Your task to perform on an android device: change timer sound Image 0: 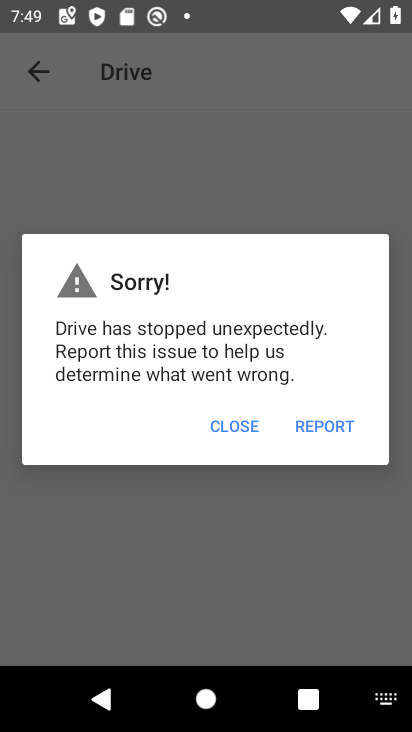
Step 0: press home button
Your task to perform on an android device: change timer sound Image 1: 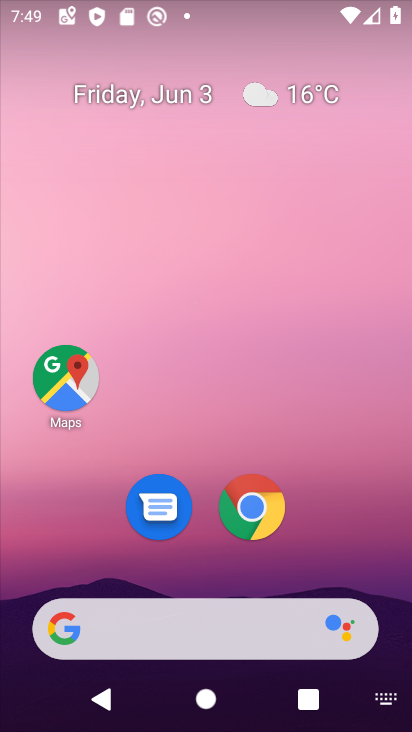
Step 1: drag from (364, 533) to (232, 98)
Your task to perform on an android device: change timer sound Image 2: 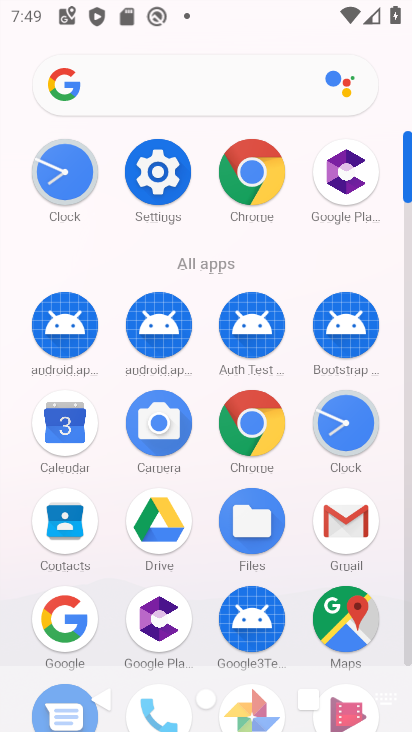
Step 2: click (67, 165)
Your task to perform on an android device: change timer sound Image 3: 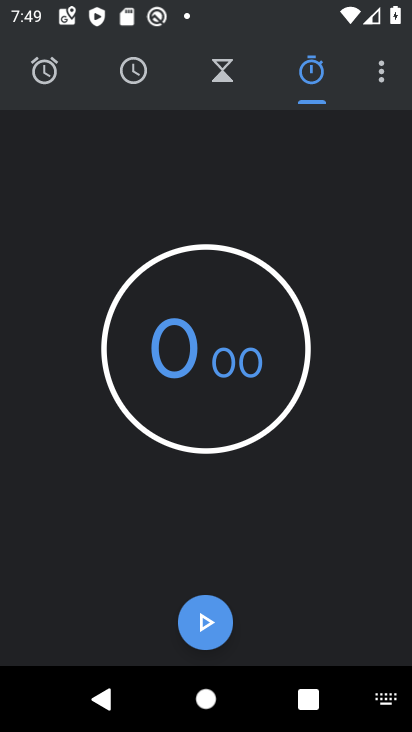
Step 3: click (383, 67)
Your task to perform on an android device: change timer sound Image 4: 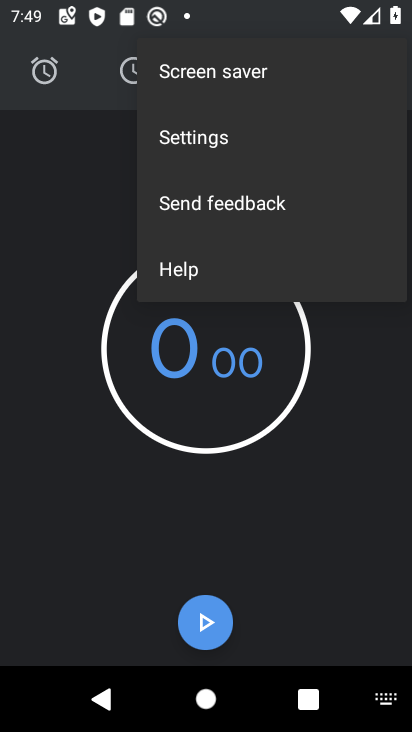
Step 4: click (249, 128)
Your task to perform on an android device: change timer sound Image 5: 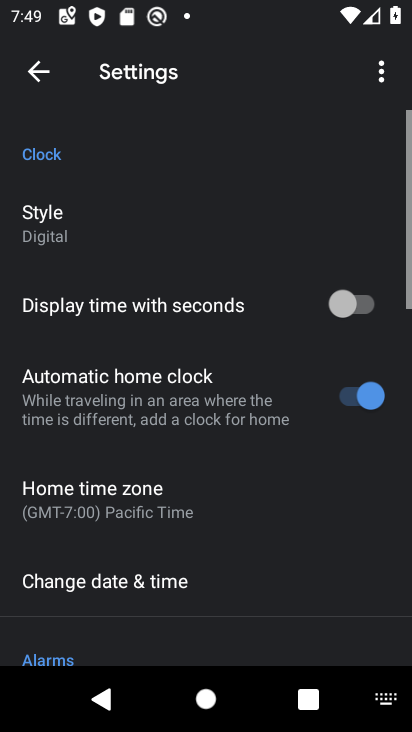
Step 5: drag from (283, 501) to (216, 6)
Your task to perform on an android device: change timer sound Image 6: 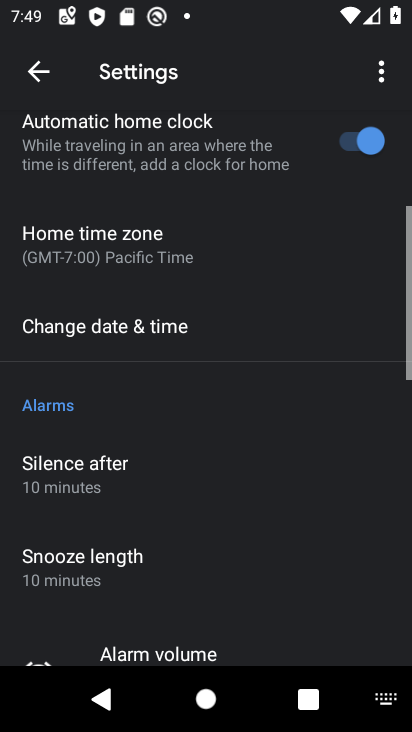
Step 6: drag from (222, 536) to (232, 4)
Your task to perform on an android device: change timer sound Image 7: 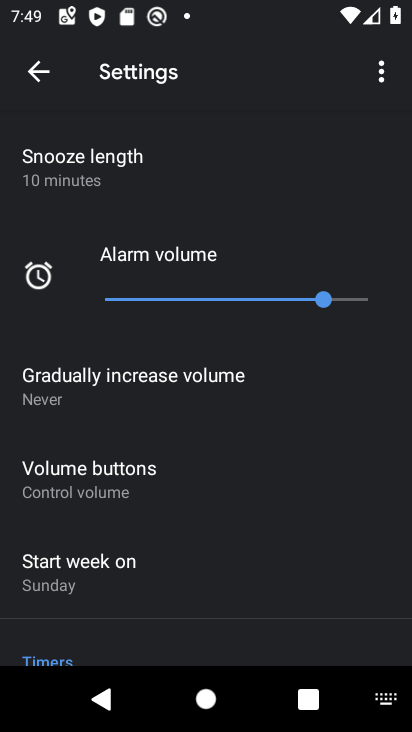
Step 7: drag from (228, 518) to (189, 53)
Your task to perform on an android device: change timer sound Image 8: 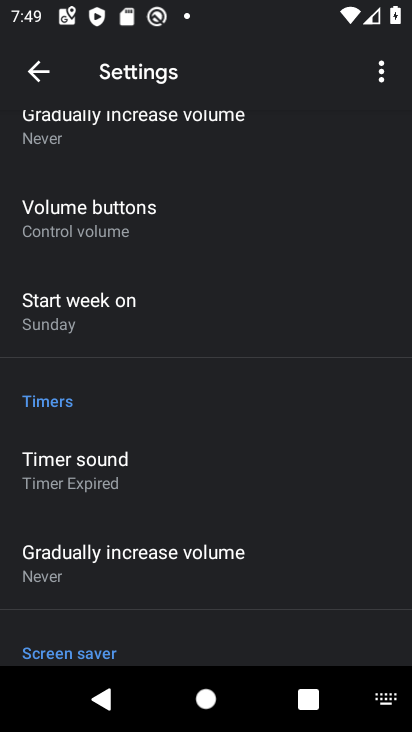
Step 8: click (209, 445)
Your task to perform on an android device: change timer sound Image 9: 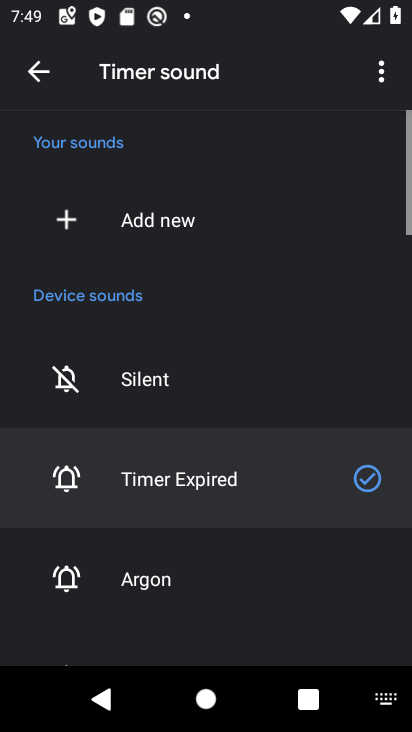
Step 9: click (270, 605)
Your task to perform on an android device: change timer sound Image 10: 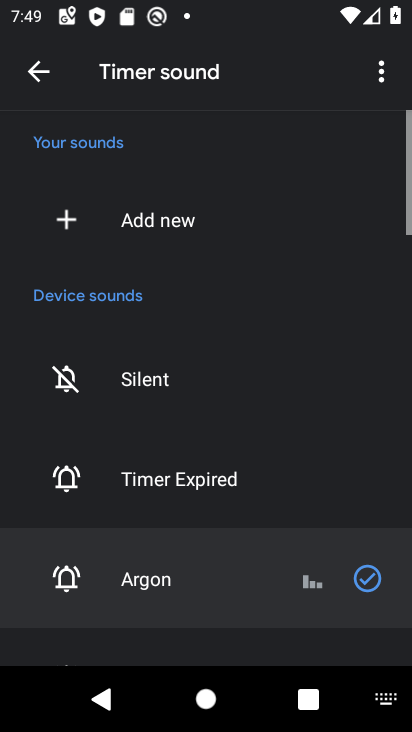
Step 10: task complete